Your task to perform on an android device: delete the emails in spam in the gmail app Image 0: 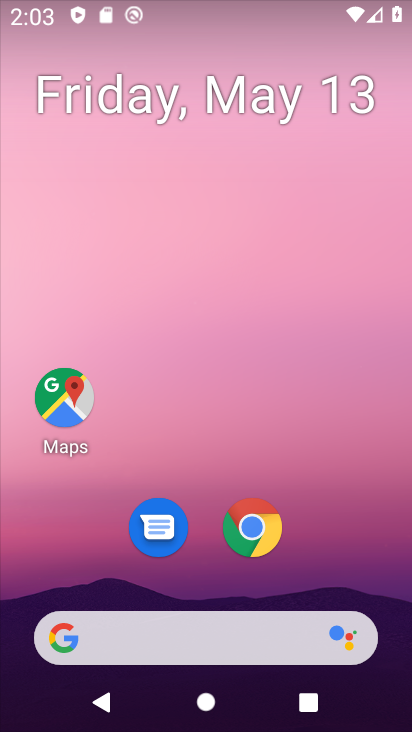
Step 0: press home button
Your task to perform on an android device: delete the emails in spam in the gmail app Image 1: 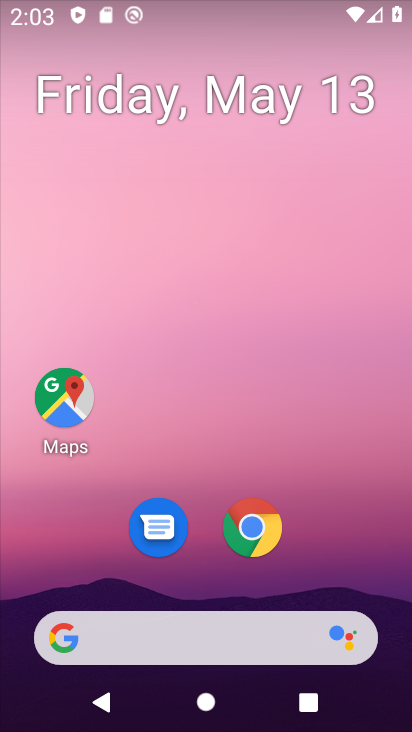
Step 1: drag from (218, 589) to (232, 166)
Your task to perform on an android device: delete the emails in spam in the gmail app Image 2: 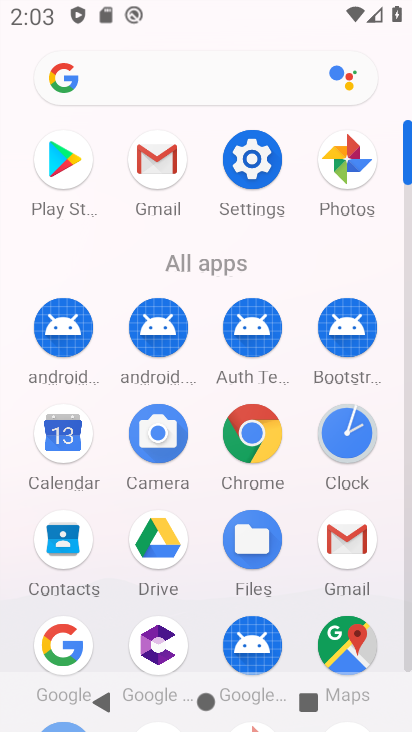
Step 2: click (143, 141)
Your task to perform on an android device: delete the emails in spam in the gmail app Image 3: 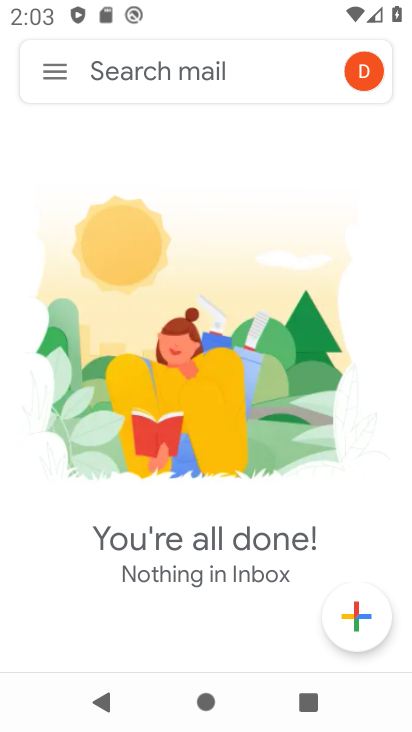
Step 3: click (77, 73)
Your task to perform on an android device: delete the emails in spam in the gmail app Image 4: 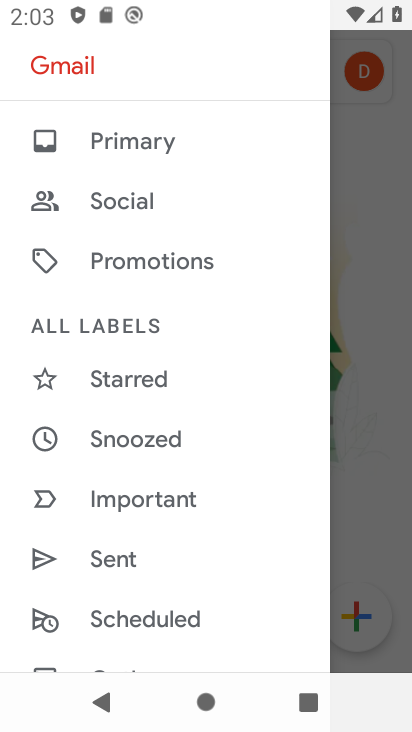
Step 4: drag from (96, 587) to (214, 267)
Your task to perform on an android device: delete the emails in spam in the gmail app Image 5: 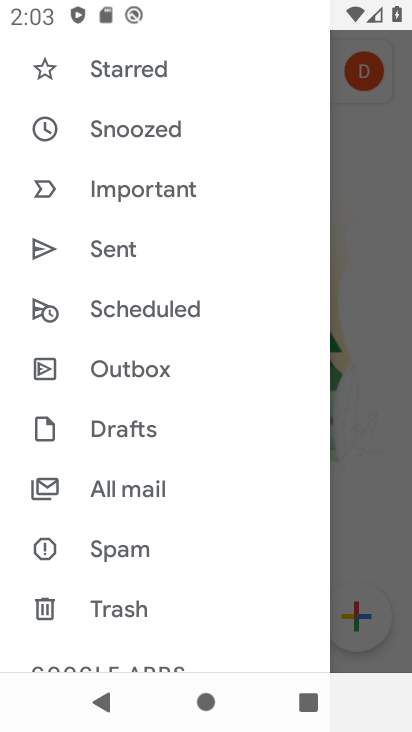
Step 5: click (136, 551)
Your task to perform on an android device: delete the emails in spam in the gmail app Image 6: 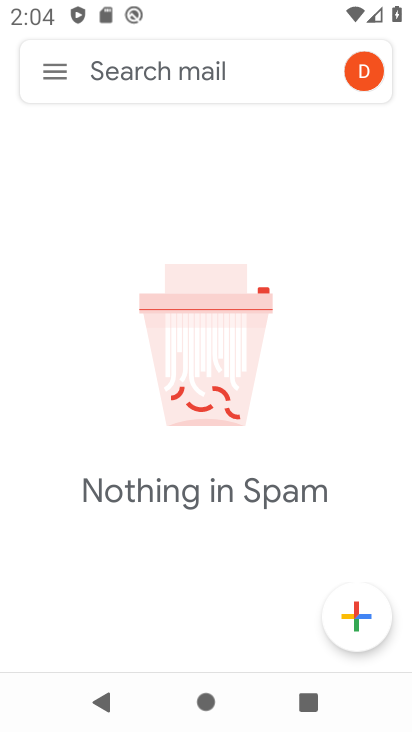
Step 6: task complete